Your task to perform on an android device: Is it going to rain tomorrow? Image 0: 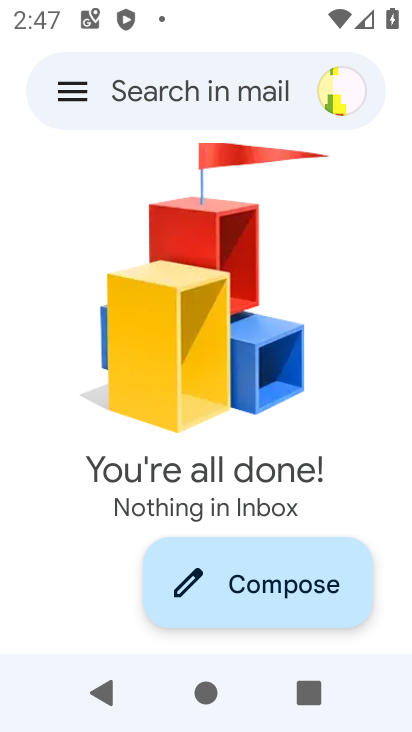
Step 0: task complete